Your task to perform on an android device: check google app version Image 0: 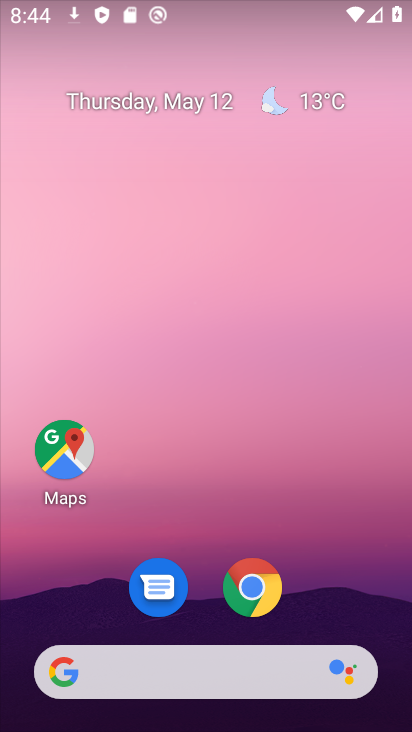
Step 0: drag from (344, 574) to (323, 7)
Your task to perform on an android device: check google app version Image 1: 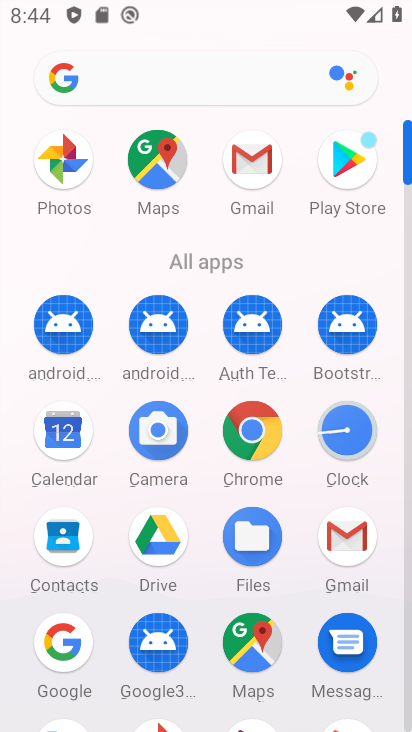
Step 1: click (73, 651)
Your task to perform on an android device: check google app version Image 2: 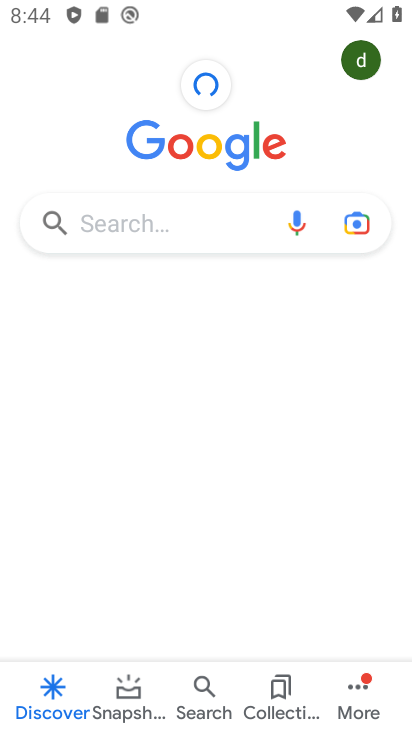
Step 2: click (375, 698)
Your task to perform on an android device: check google app version Image 3: 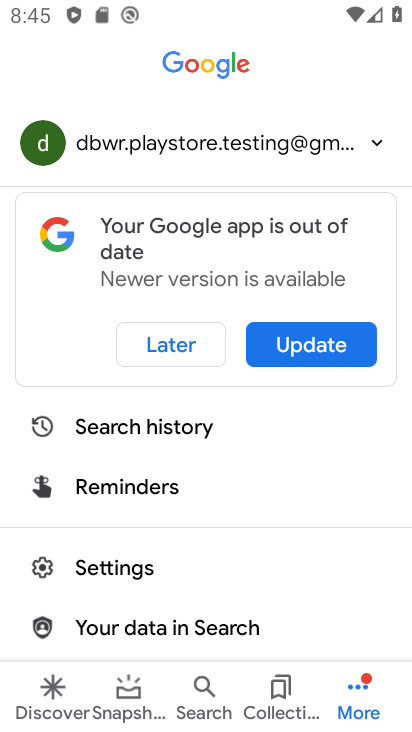
Step 3: drag from (144, 600) to (78, 75)
Your task to perform on an android device: check google app version Image 4: 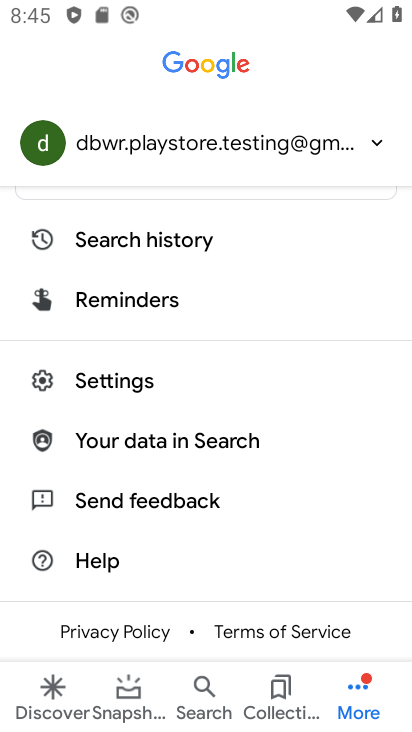
Step 4: drag from (145, 589) to (148, 205)
Your task to perform on an android device: check google app version Image 5: 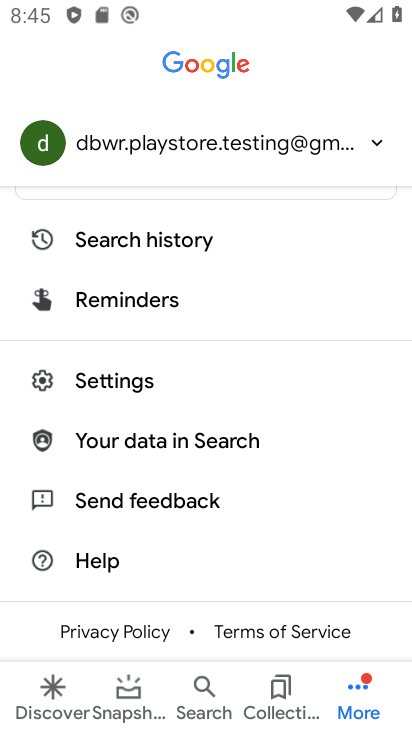
Step 5: click (116, 379)
Your task to perform on an android device: check google app version Image 6: 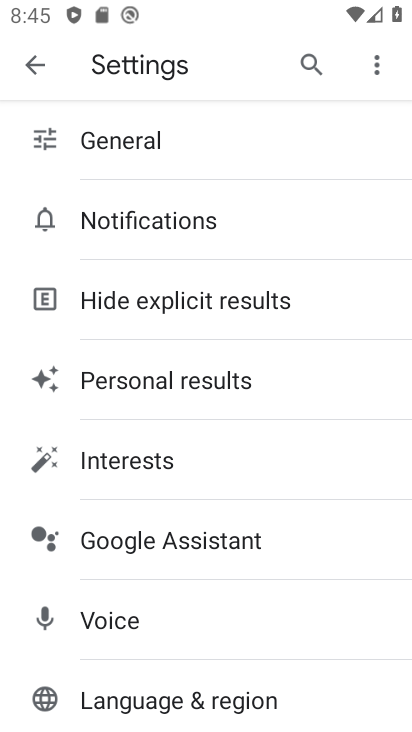
Step 6: drag from (120, 657) to (223, 230)
Your task to perform on an android device: check google app version Image 7: 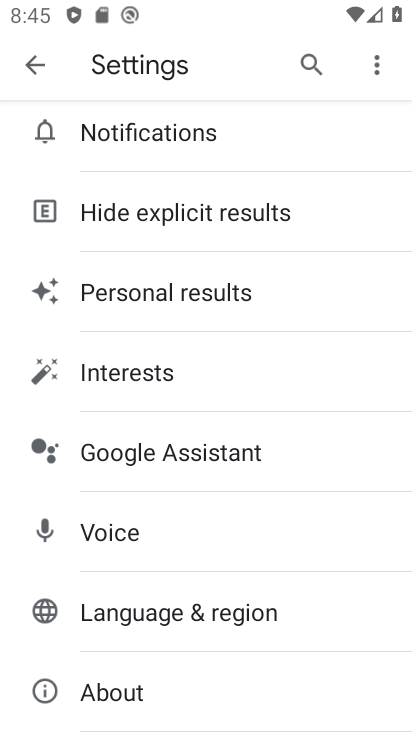
Step 7: drag from (201, 610) to (241, 267)
Your task to perform on an android device: check google app version Image 8: 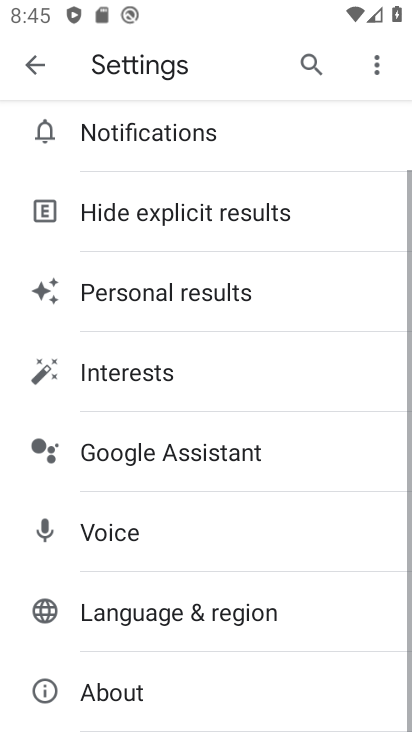
Step 8: click (176, 691)
Your task to perform on an android device: check google app version Image 9: 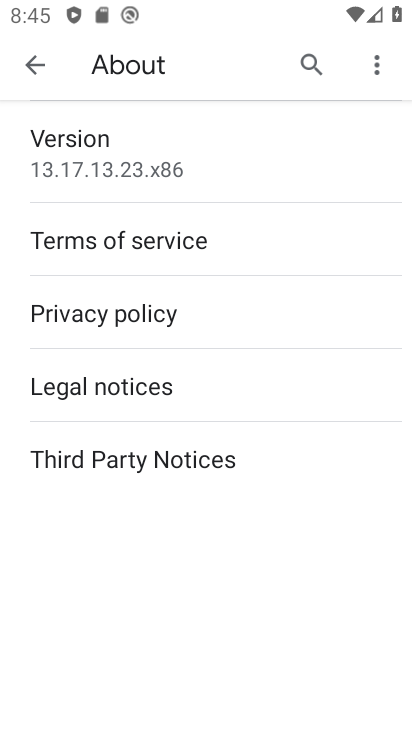
Step 9: click (61, 157)
Your task to perform on an android device: check google app version Image 10: 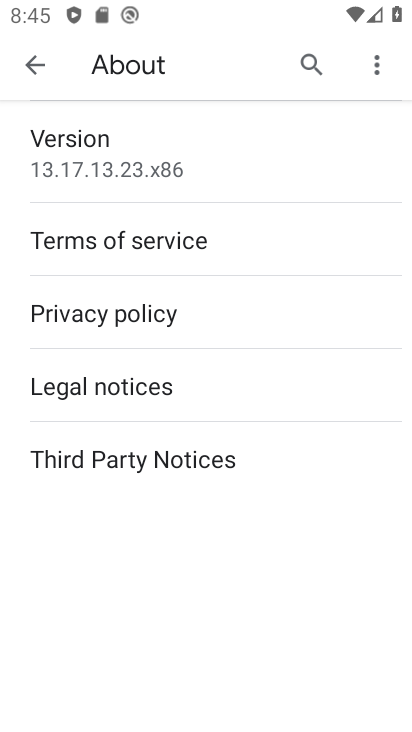
Step 10: click (61, 157)
Your task to perform on an android device: check google app version Image 11: 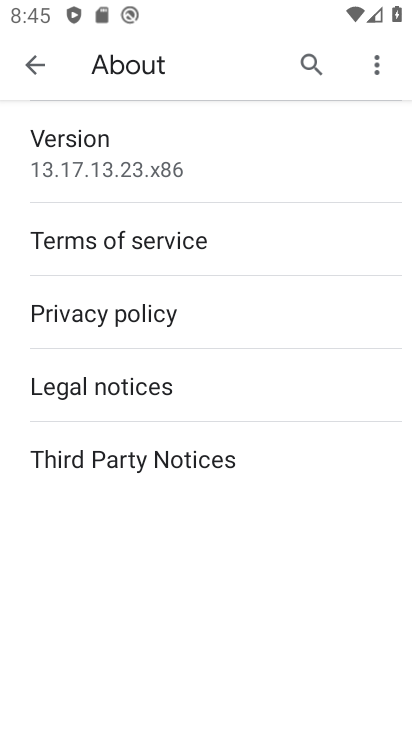
Step 11: task complete